Your task to perform on an android device: toggle location history Image 0: 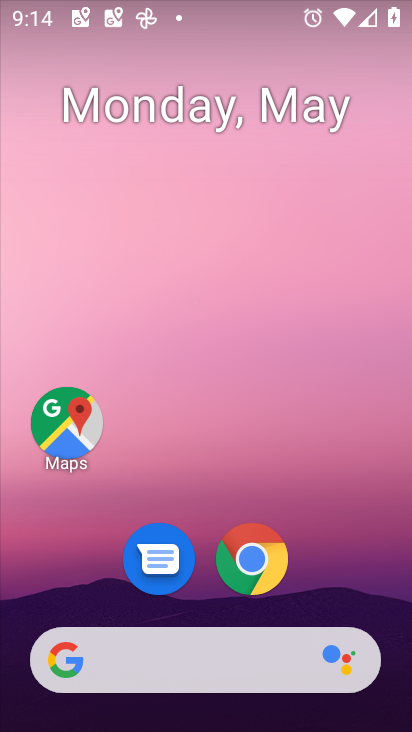
Step 0: drag from (374, 621) to (202, 92)
Your task to perform on an android device: toggle location history Image 1: 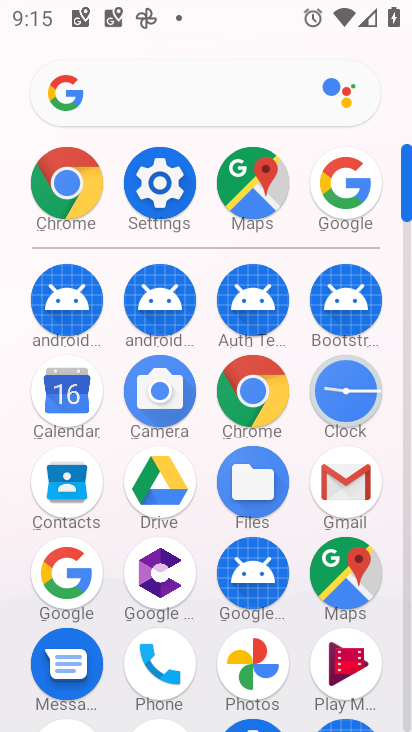
Step 1: click (162, 180)
Your task to perform on an android device: toggle location history Image 2: 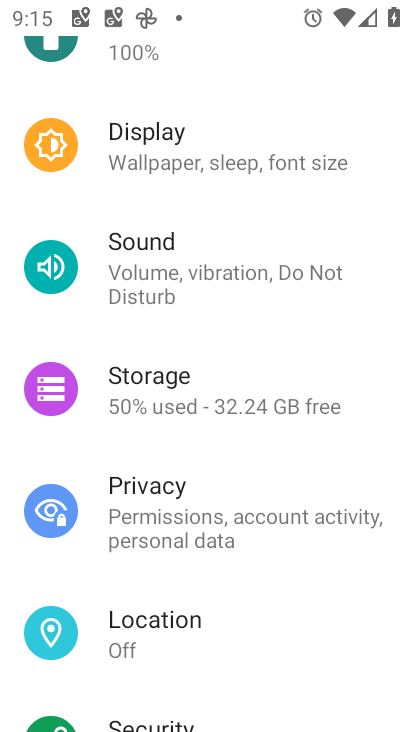
Step 2: click (196, 630)
Your task to perform on an android device: toggle location history Image 3: 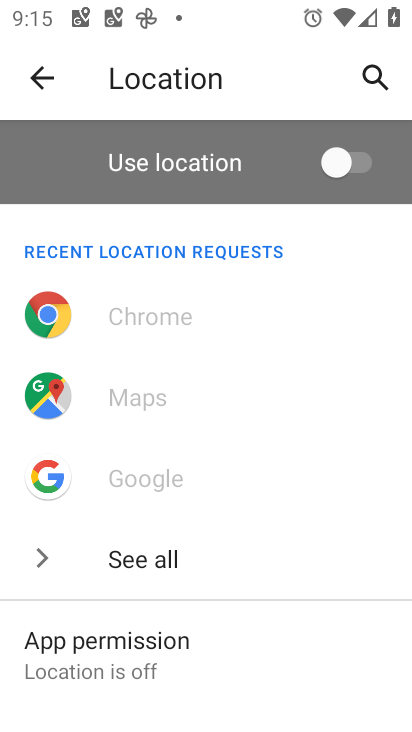
Step 3: drag from (160, 649) to (176, 257)
Your task to perform on an android device: toggle location history Image 4: 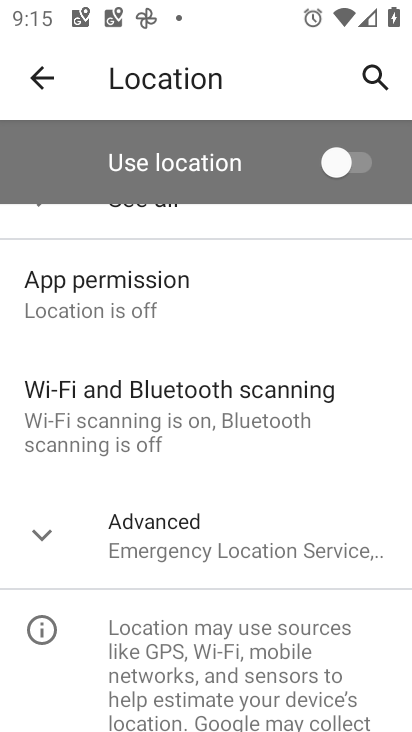
Step 4: click (44, 537)
Your task to perform on an android device: toggle location history Image 5: 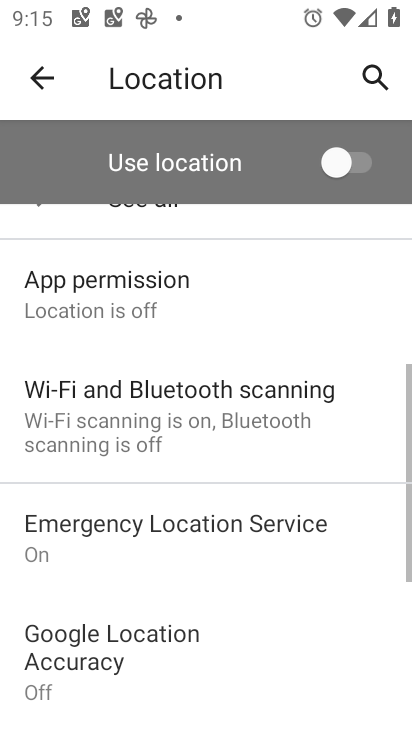
Step 5: drag from (145, 562) to (207, 248)
Your task to perform on an android device: toggle location history Image 6: 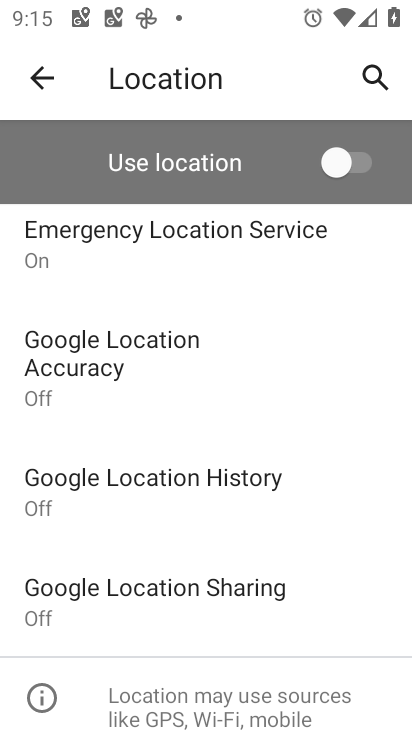
Step 6: click (198, 474)
Your task to perform on an android device: toggle location history Image 7: 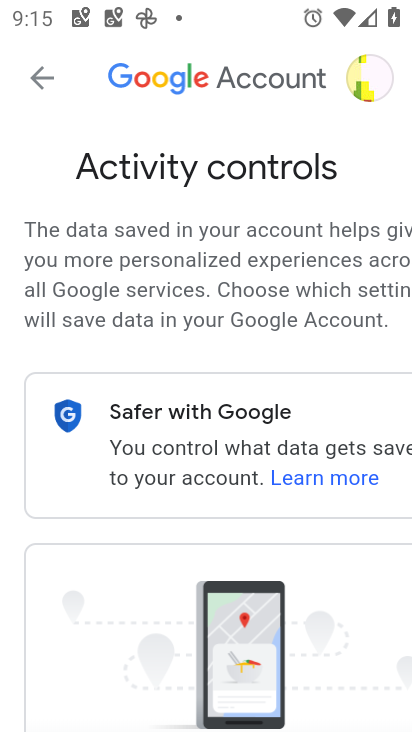
Step 7: drag from (308, 609) to (187, 50)
Your task to perform on an android device: toggle location history Image 8: 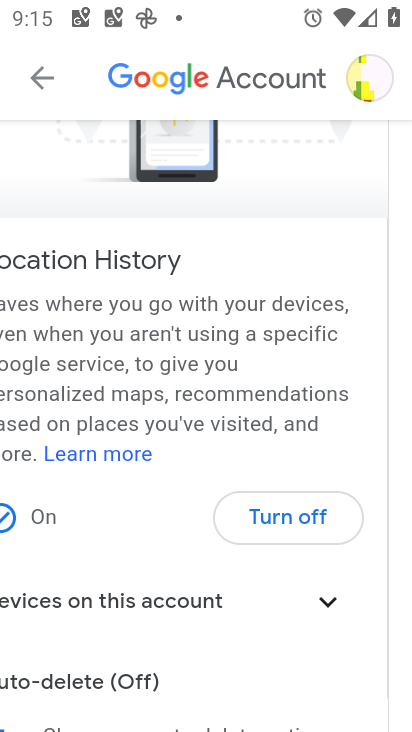
Step 8: click (282, 518)
Your task to perform on an android device: toggle location history Image 9: 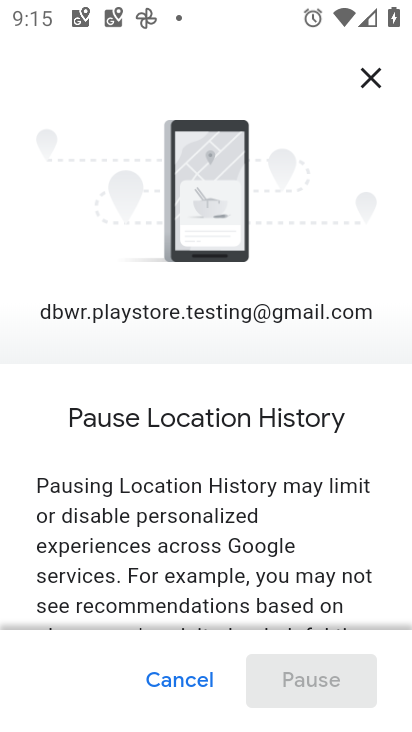
Step 9: task complete